Your task to perform on an android device: Open Yahoo.com Image 0: 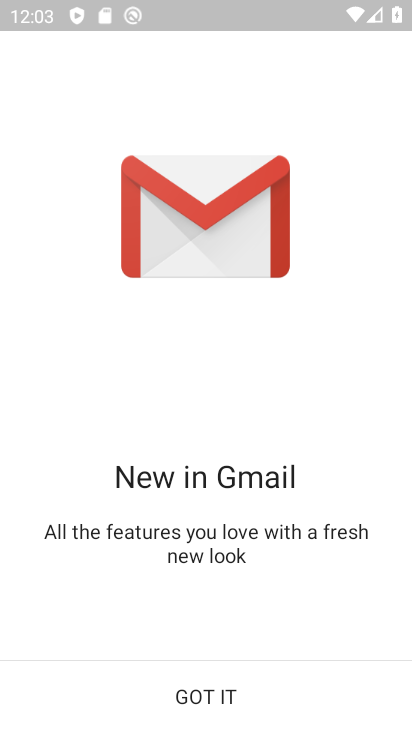
Step 0: press home button
Your task to perform on an android device: Open Yahoo.com Image 1: 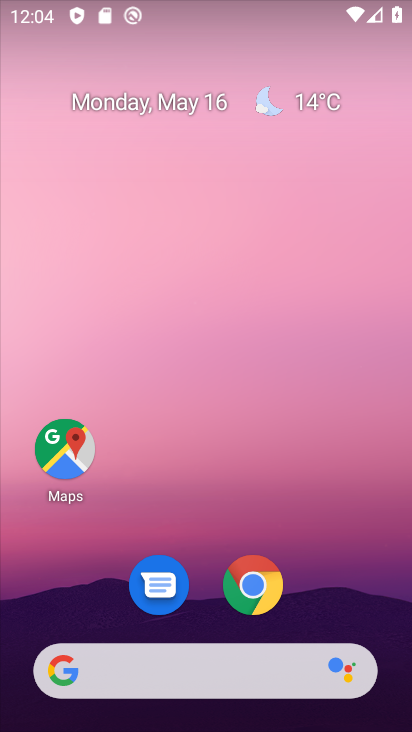
Step 1: click (263, 678)
Your task to perform on an android device: Open Yahoo.com Image 2: 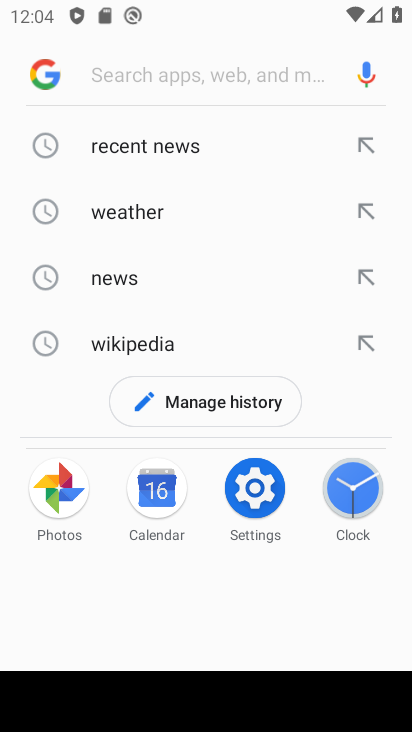
Step 2: type "yahoo.com"
Your task to perform on an android device: Open Yahoo.com Image 3: 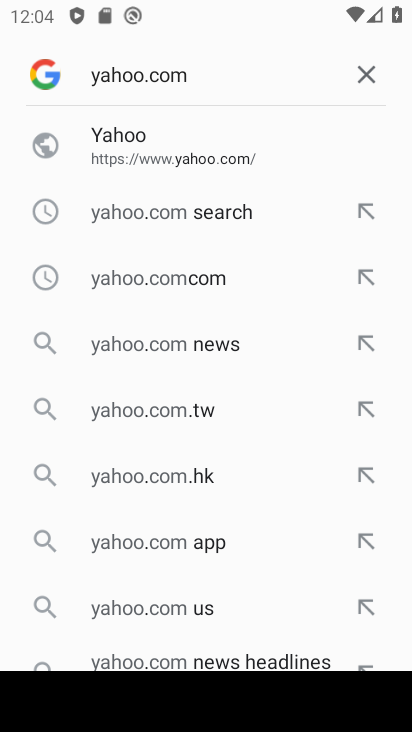
Step 3: click (55, 140)
Your task to perform on an android device: Open Yahoo.com Image 4: 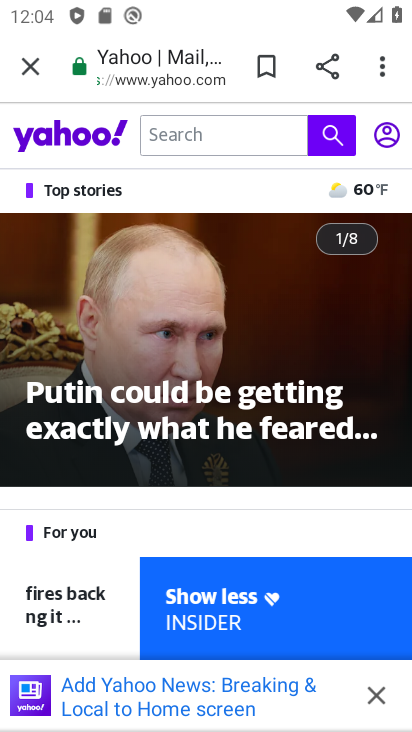
Step 4: task complete